Your task to perform on an android device: Open the play store Image 0: 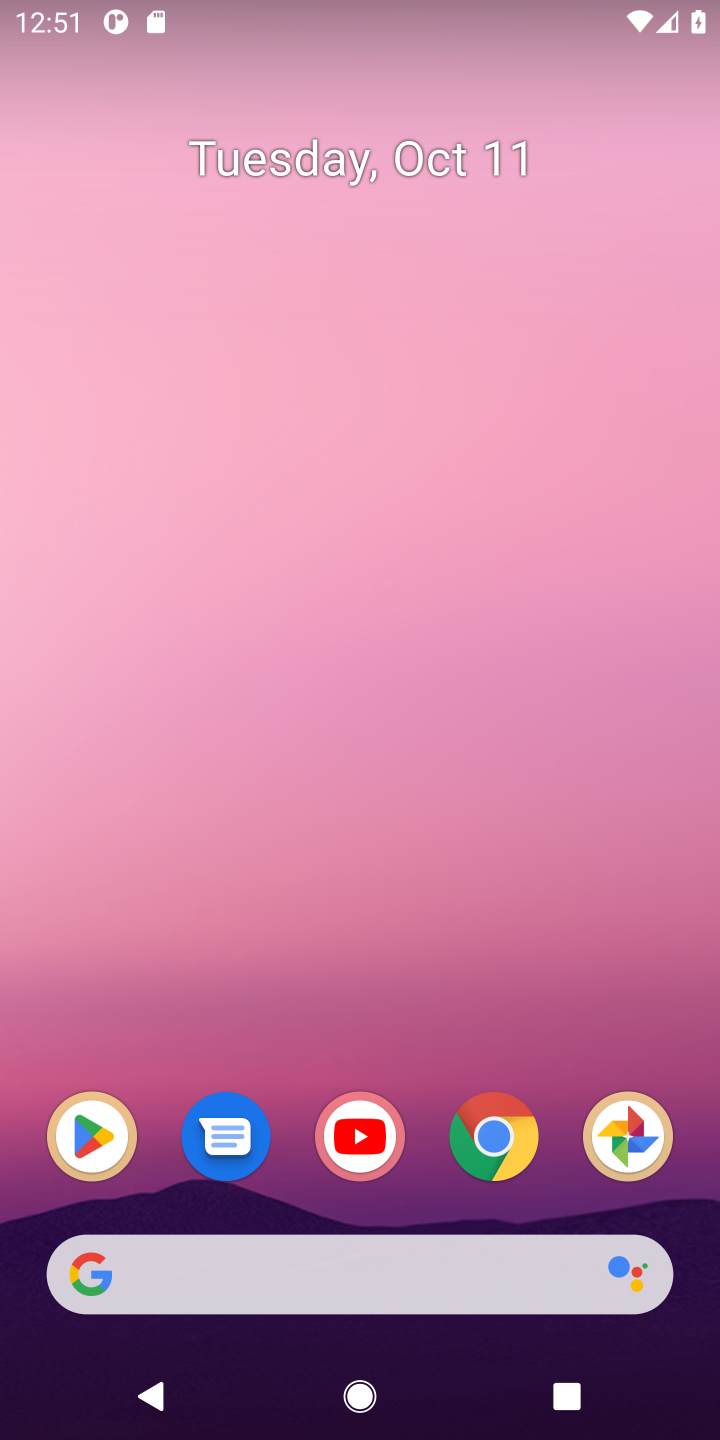
Step 0: drag from (631, 847) to (599, 277)
Your task to perform on an android device: Open the play store Image 1: 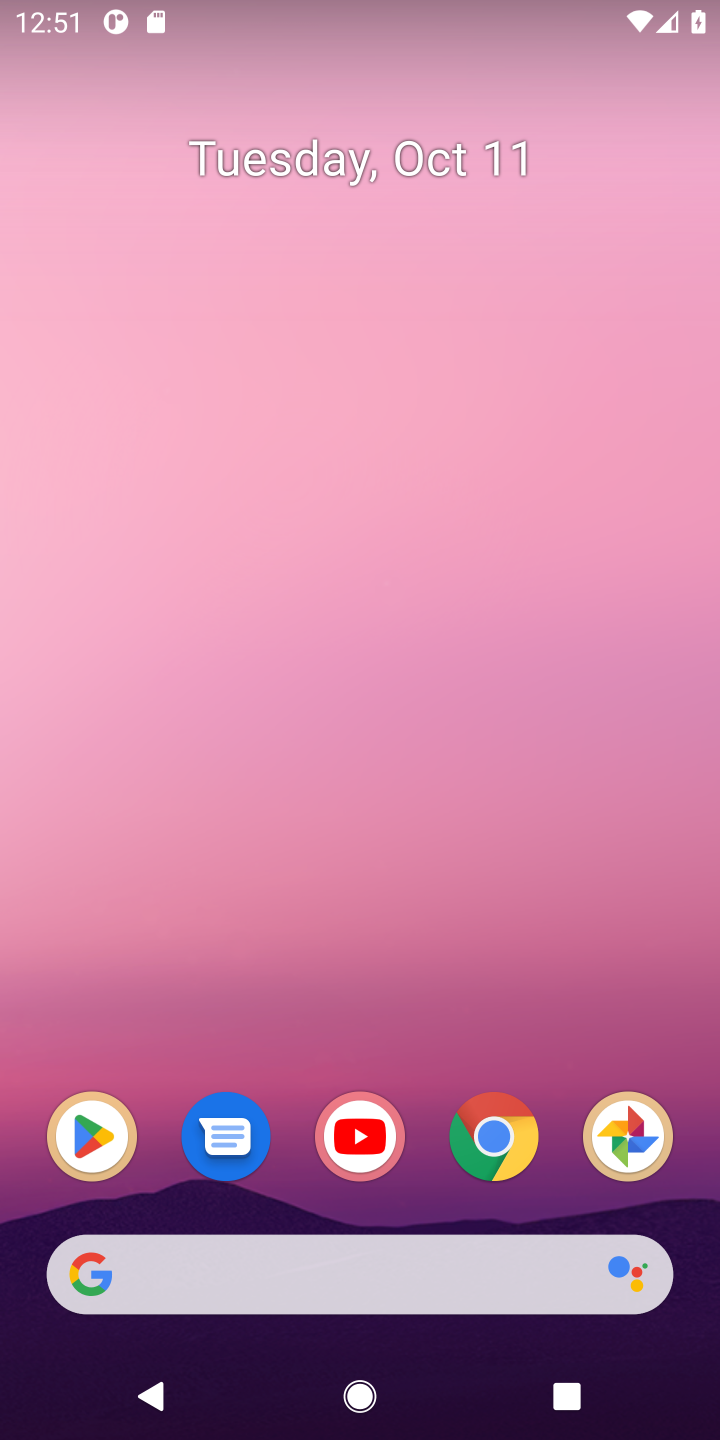
Step 1: drag from (650, 990) to (612, 108)
Your task to perform on an android device: Open the play store Image 2: 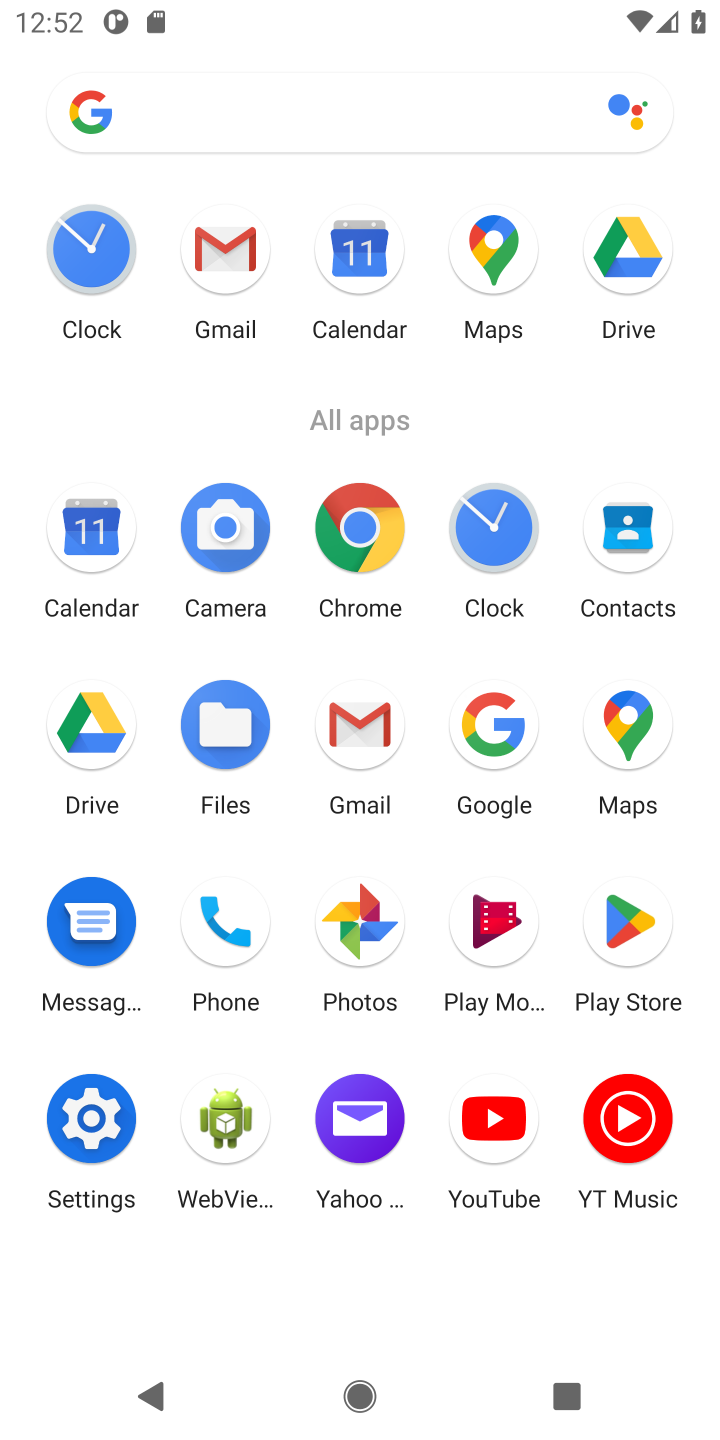
Step 2: click (624, 924)
Your task to perform on an android device: Open the play store Image 3: 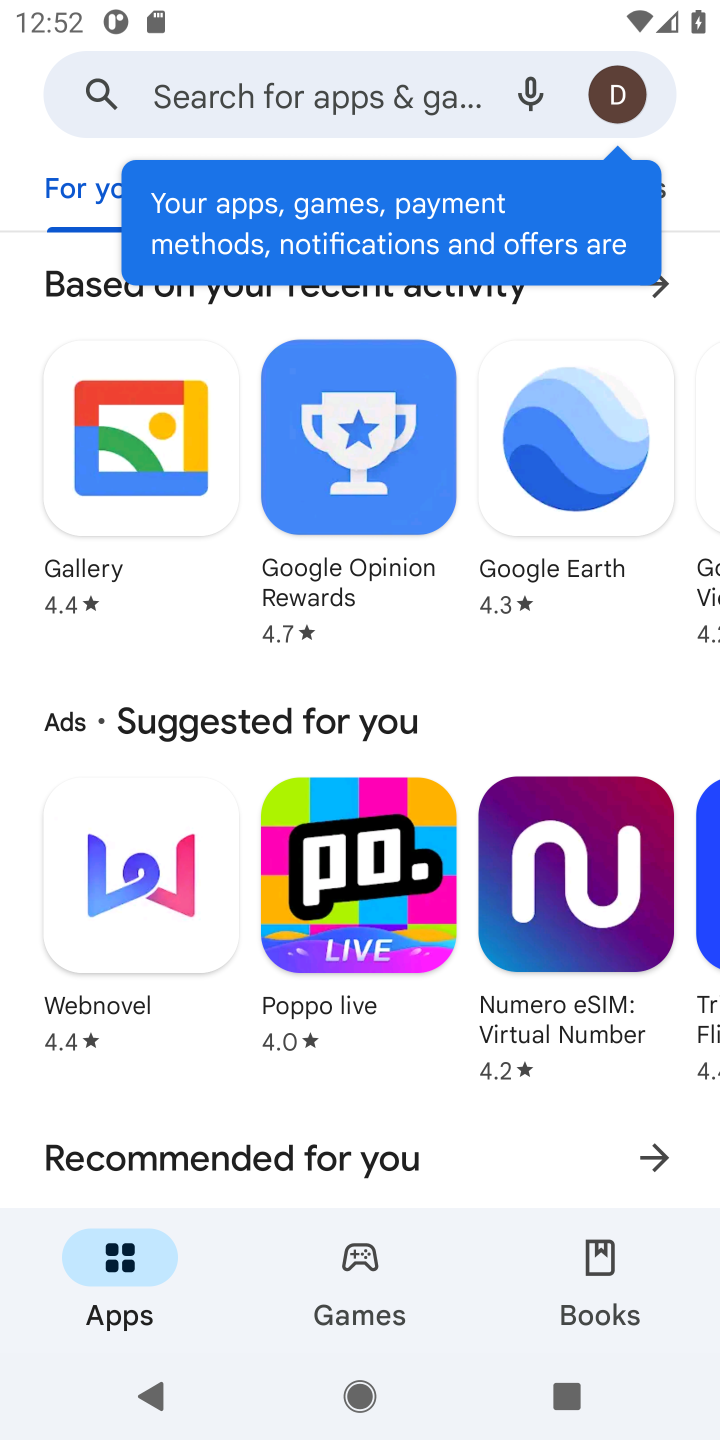
Step 3: task complete